Your task to perform on an android device: find photos in the google photos app Image 0: 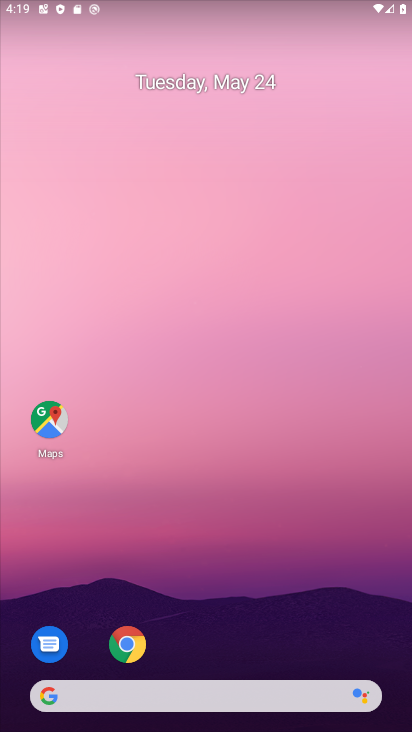
Step 0: drag from (252, 706) to (235, 35)
Your task to perform on an android device: find photos in the google photos app Image 1: 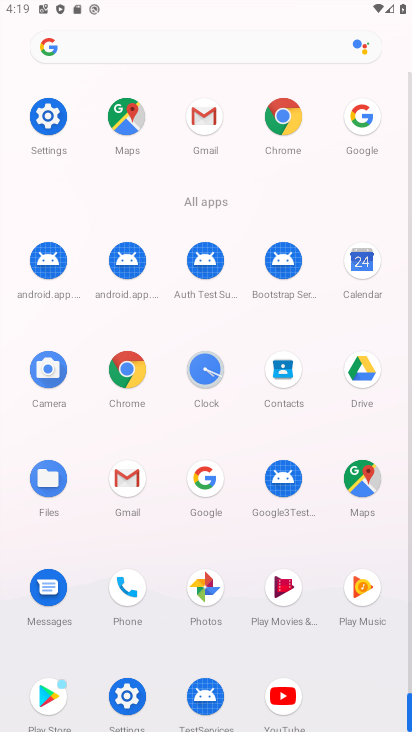
Step 1: click (211, 591)
Your task to perform on an android device: find photos in the google photos app Image 2: 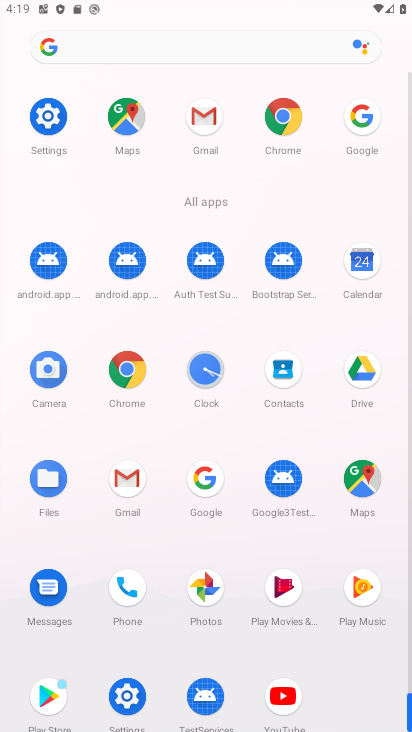
Step 2: click (210, 591)
Your task to perform on an android device: find photos in the google photos app Image 3: 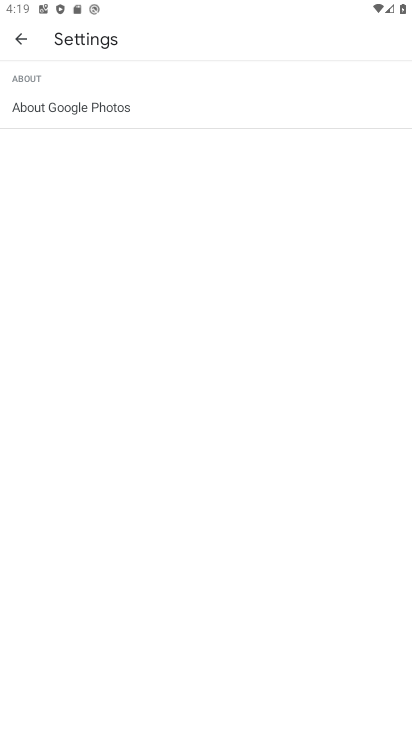
Step 3: click (213, 590)
Your task to perform on an android device: find photos in the google photos app Image 4: 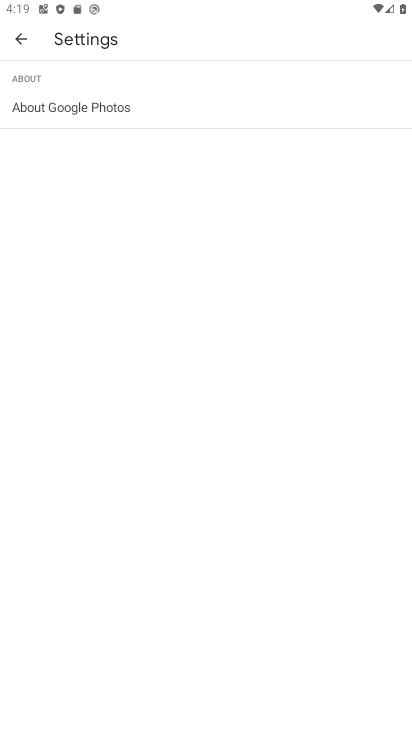
Step 4: click (197, 543)
Your task to perform on an android device: find photos in the google photos app Image 5: 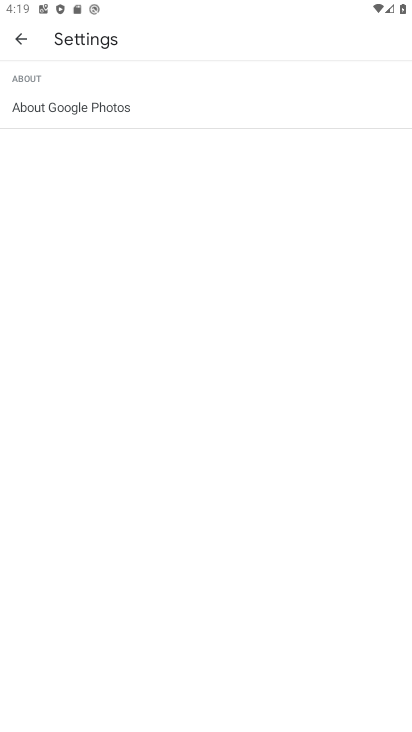
Step 5: click (197, 543)
Your task to perform on an android device: find photos in the google photos app Image 6: 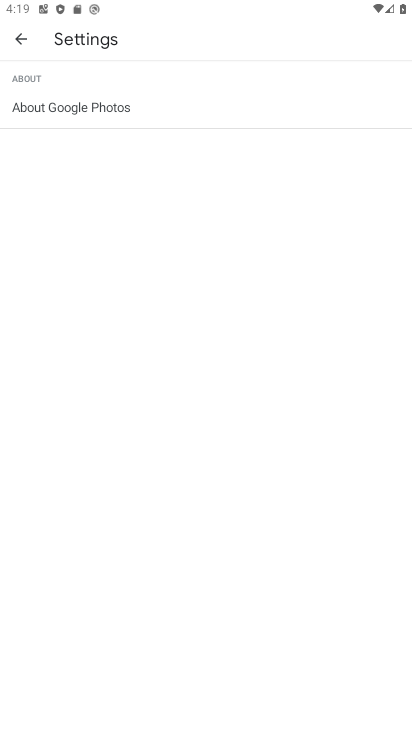
Step 6: click (16, 37)
Your task to perform on an android device: find photos in the google photos app Image 7: 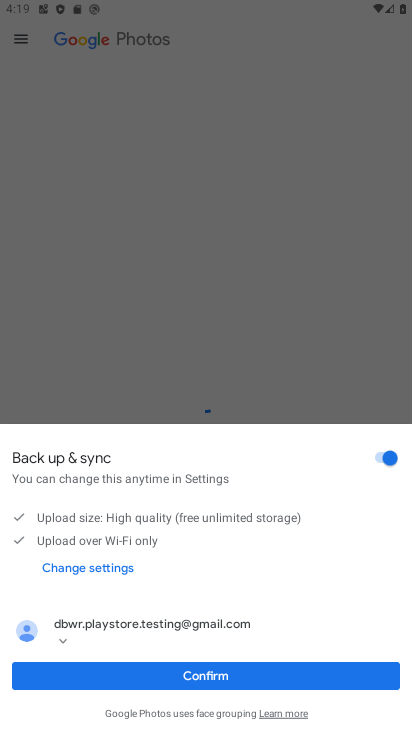
Step 7: click (16, 38)
Your task to perform on an android device: find photos in the google photos app Image 8: 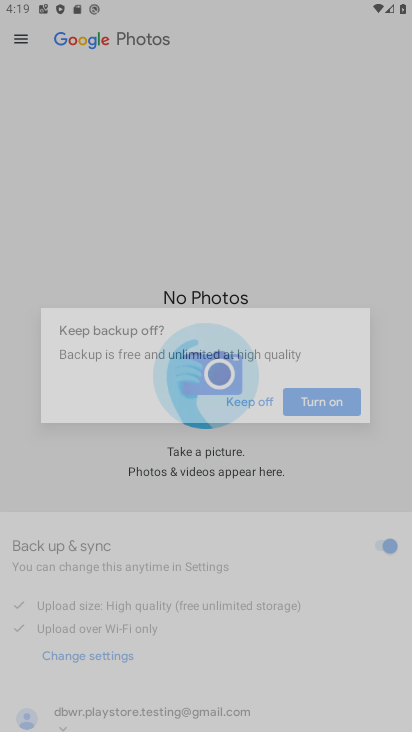
Step 8: click (18, 43)
Your task to perform on an android device: find photos in the google photos app Image 9: 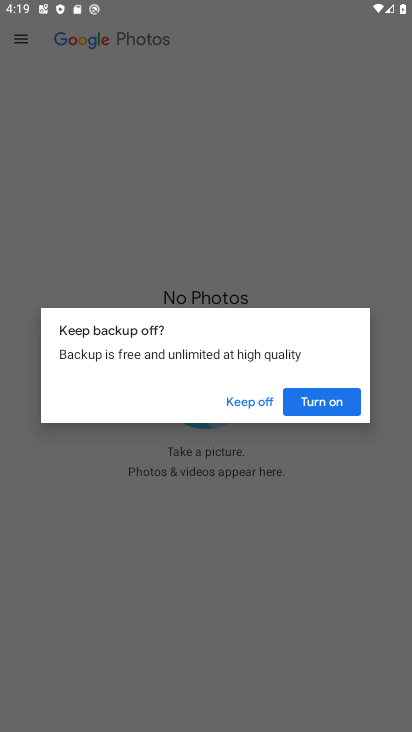
Step 9: click (18, 45)
Your task to perform on an android device: find photos in the google photos app Image 10: 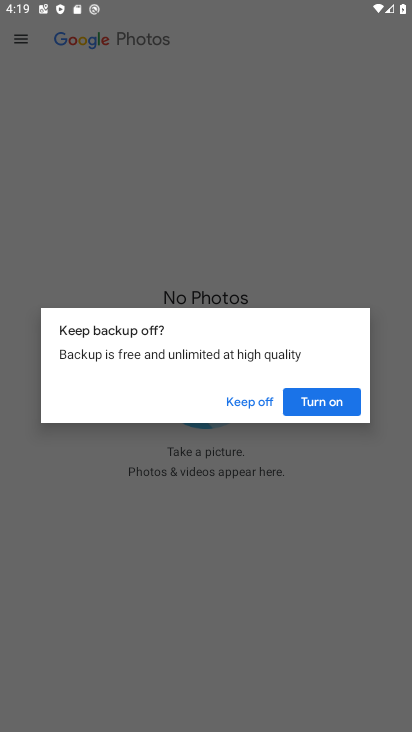
Step 10: click (20, 53)
Your task to perform on an android device: find photos in the google photos app Image 11: 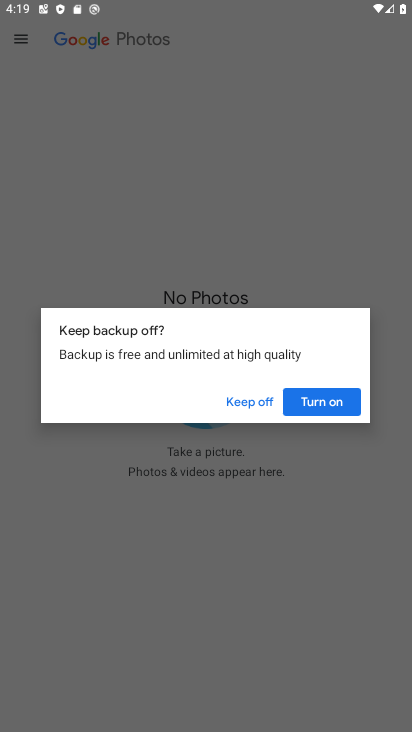
Step 11: click (347, 406)
Your task to perform on an android device: find photos in the google photos app Image 12: 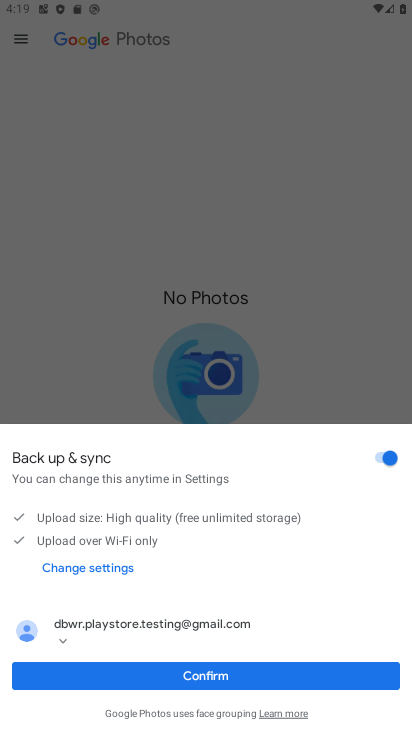
Step 12: click (216, 662)
Your task to perform on an android device: find photos in the google photos app Image 13: 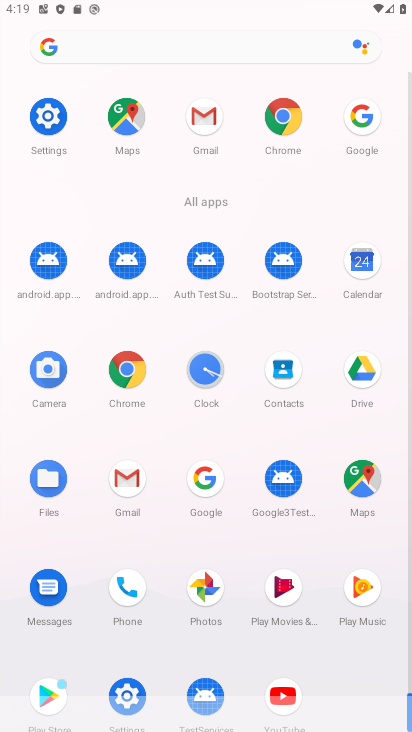
Step 13: click (204, 591)
Your task to perform on an android device: find photos in the google photos app Image 14: 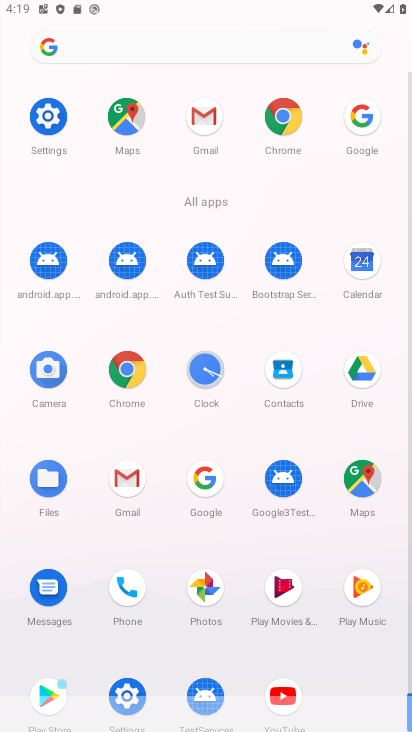
Step 14: click (208, 583)
Your task to perform on an android device: find photos in the google photos app Image 15: 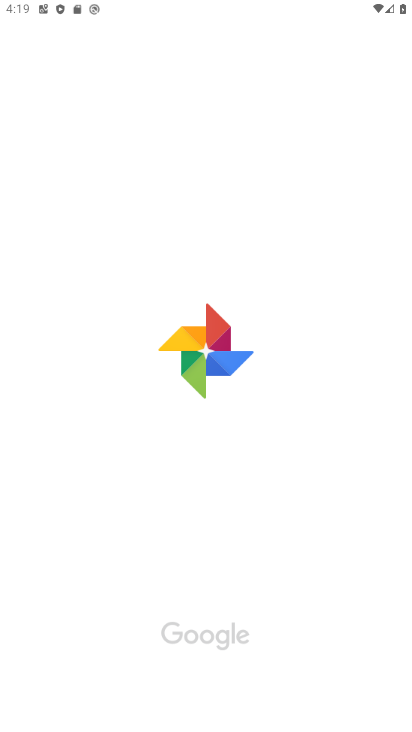
Step 15: click (210, 583)
Your task to perform on an android device: find photos in the google photos app Image 16: 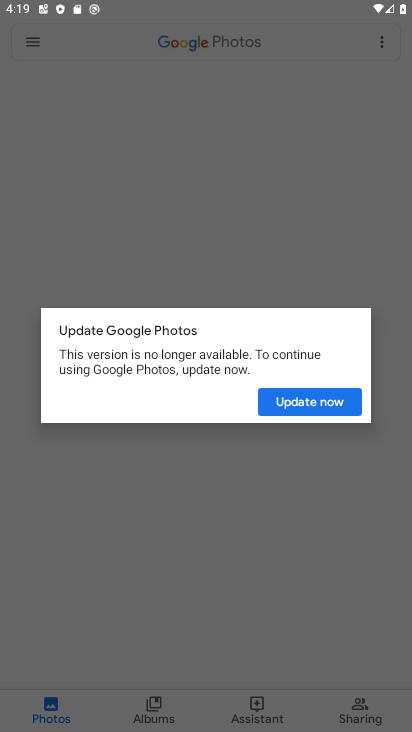
Step 16: click (323, 398)
Your task to perform on an android device: find photos in the google photos app Image 17: 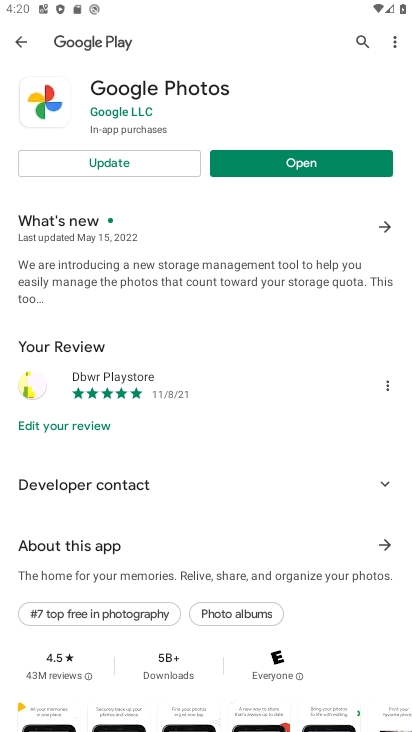
Step 17: click (118, 169)
Your task to perform on an android device: find photos in the google photos app Image 18: 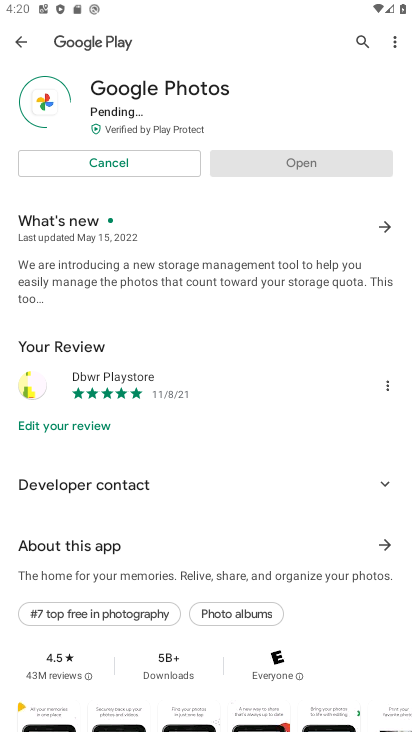
Step 18: click (325, 152)
Your task to perform on an android device: find photos in the google photos app Image 19: 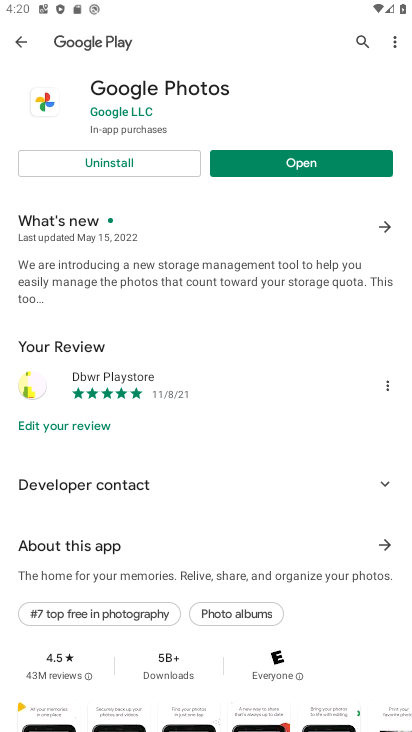
Step 19: task complete